Your task to perform on an android device: toggle priority inbox in the gmail app Image 0: 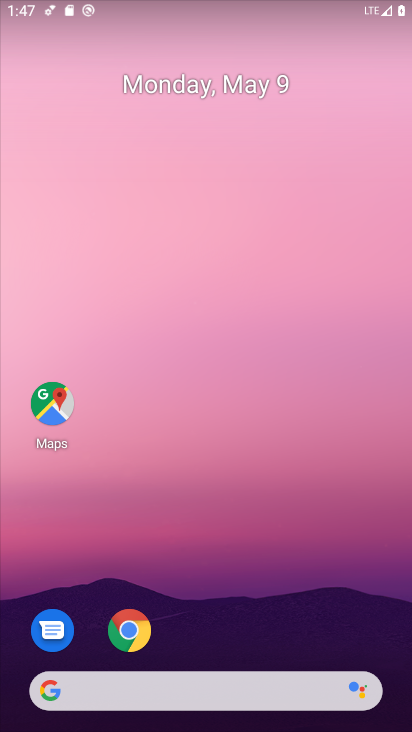
Step 0: drag from (224, 615) to (322, 4)
Your task to perform on an android device: toggle priority inbox in the gmail app Image 1: 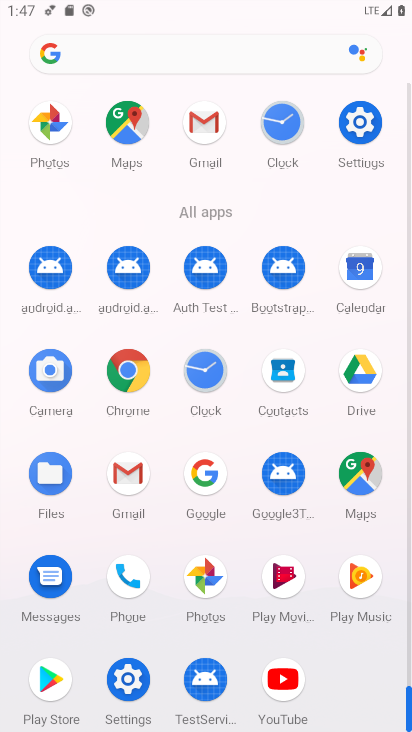
Step 1: click (124, 478)
Your task to perform on an android device: toggle priority inbox in the gmail app Image 2: 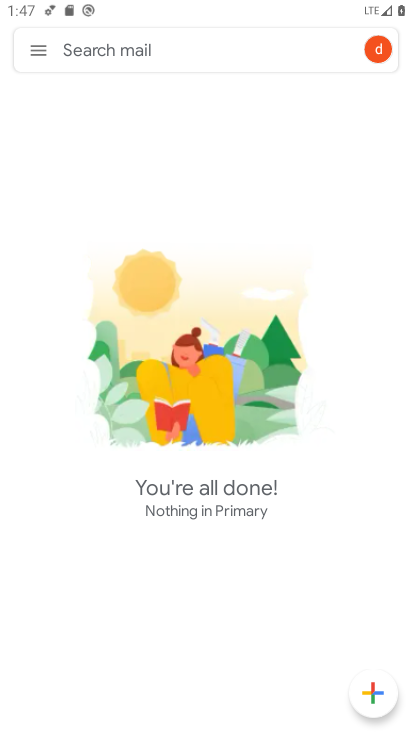
Step 2: click (40, 57)
Your task to perform on an android device: toggle priority inbox in the gmail app Image 3: 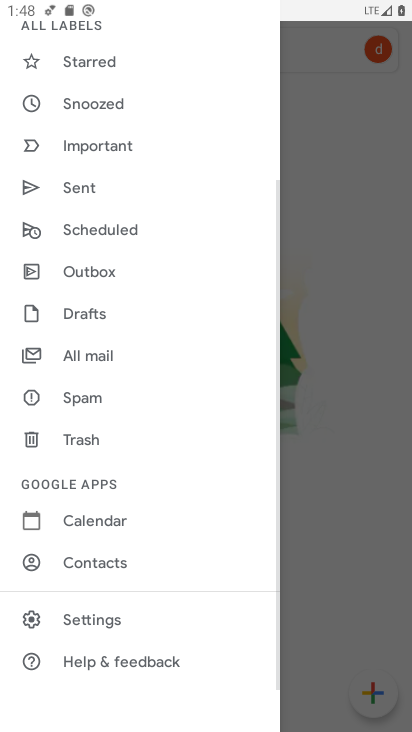
Step 3: click (92, 632)
Your task to perform on an android device: toggle priority inbox in the gmail app Image 4: 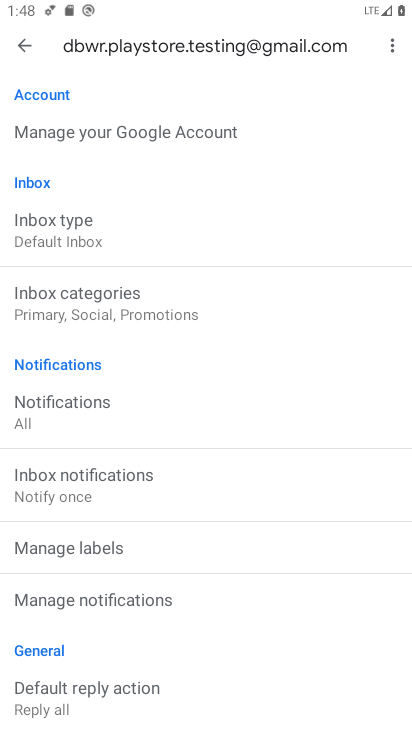
Step 4: click (159, 242)
Your task to perform on an android device: toggle priority inbox in the gmail app Image 5: 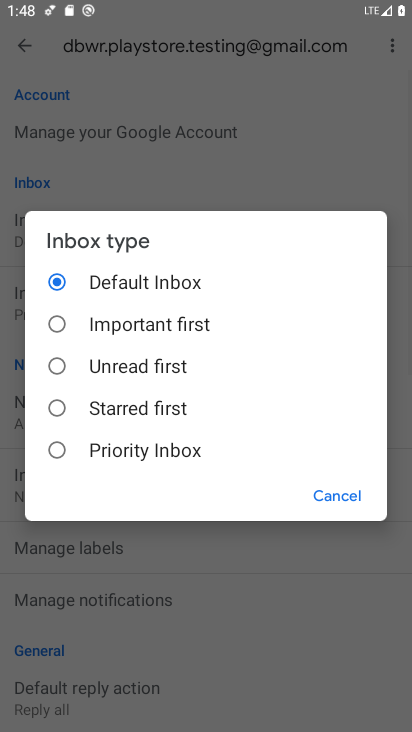
Step 5: click (108, 459)
Your task to perform on an android device: toggle priority inbox in the gmail app Image 6: 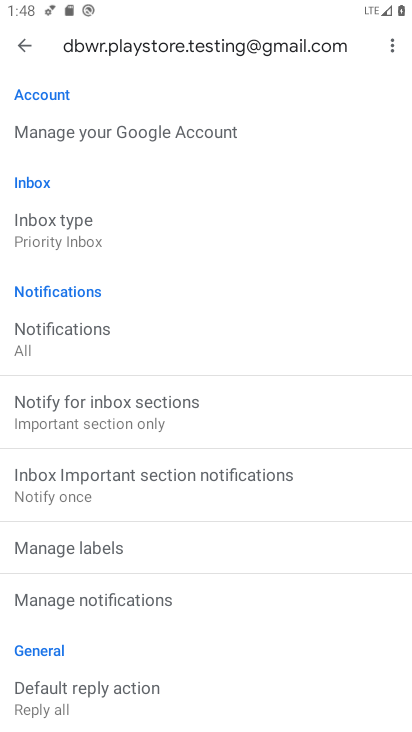
Step 6: task complete